Your task to perform on an android device: move an email to a new category in the gmail app Image 0: 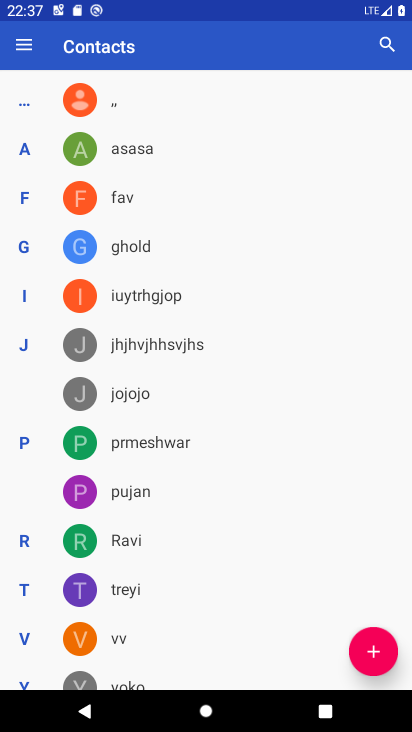
Step 0: press home button
Your task to perform on an android device: move an email to a new category in the gmail app Image 1: 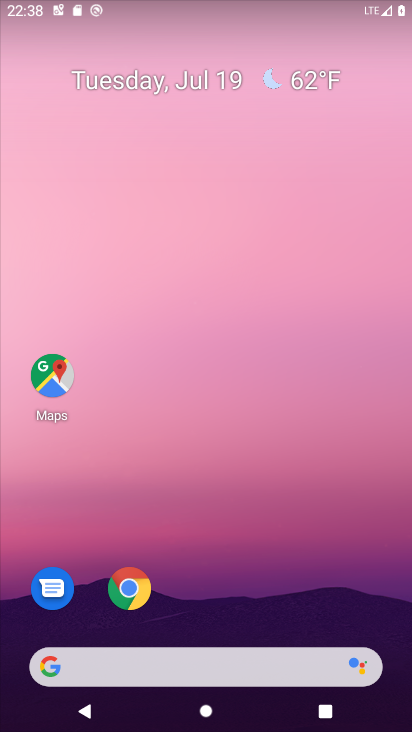
Step 1: drag from (199, 633) to (195, 318)
Your task to perform on an android device: move an email to a new category in the gmail app Image 2: 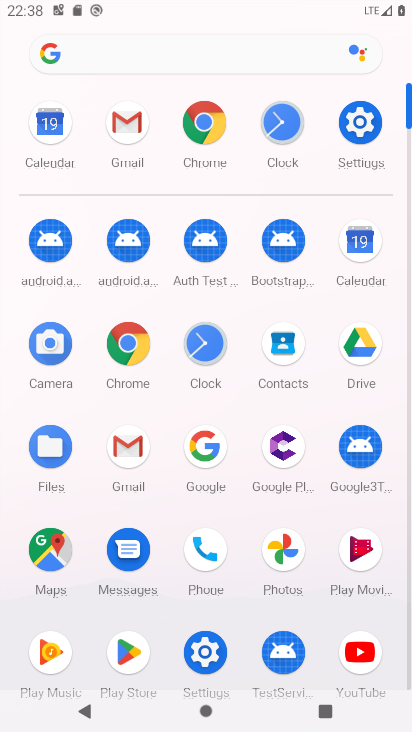
Step 2: click (132, 438)
Your task to perform on an android device: move an email to a new category in the gmail app Image 3: 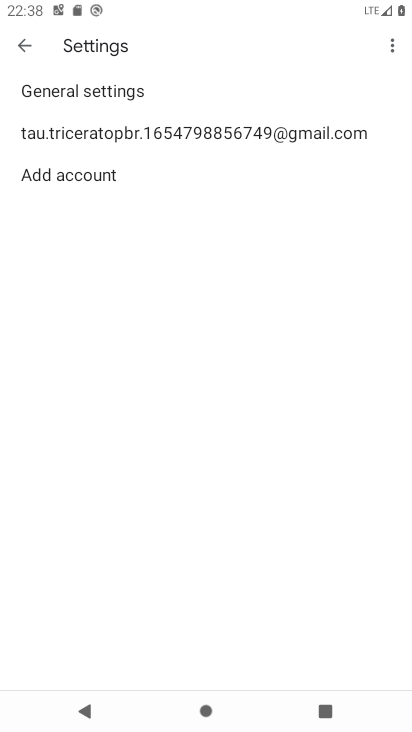
Step 3: click (23, 45)
Your task to perform on an android device: move an email to a new category in the gmail app Image 4: 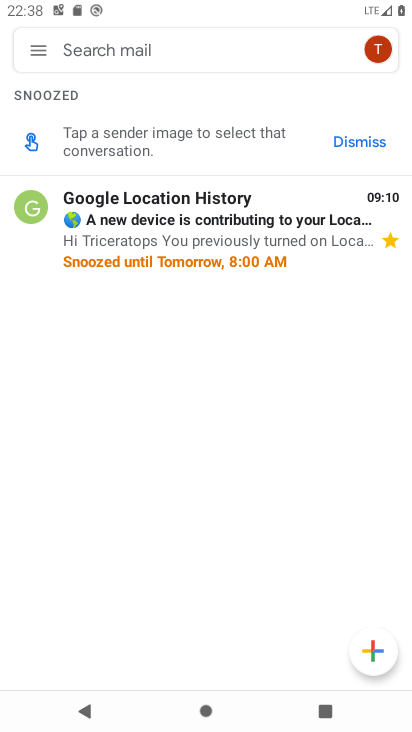
Step 4: click (231, 208)
Your task to perform on an android device: move an email to a new category in the gmail app Image 5: 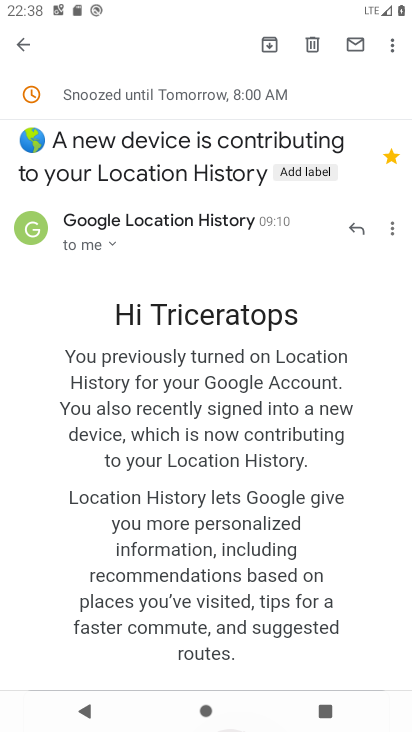
Step 5: click (396, 50)
Your task to perform on an android device: move an email to a new category in the gmail app Image 6: 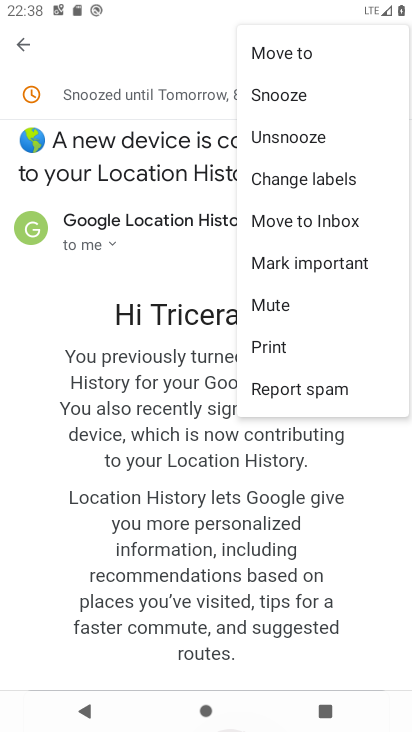
Step 6: click (353, 45)
Your task to perform on an android device: move an email to a new category in the gmail app Image 7: 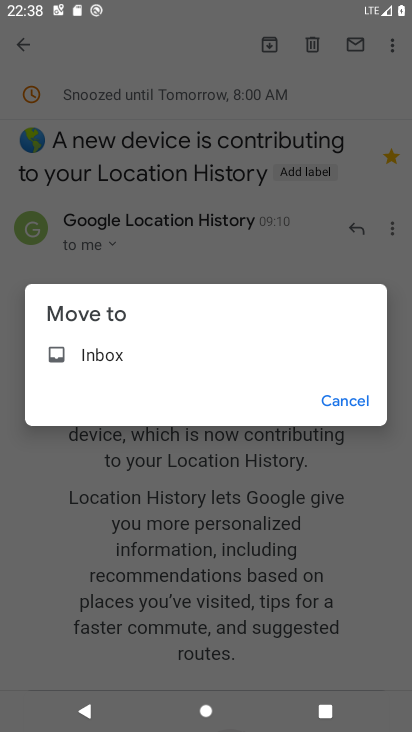
Step 7: click (92, 358)
Your task to perform on an android device: move an email to a new category in the gmail app Image 8: 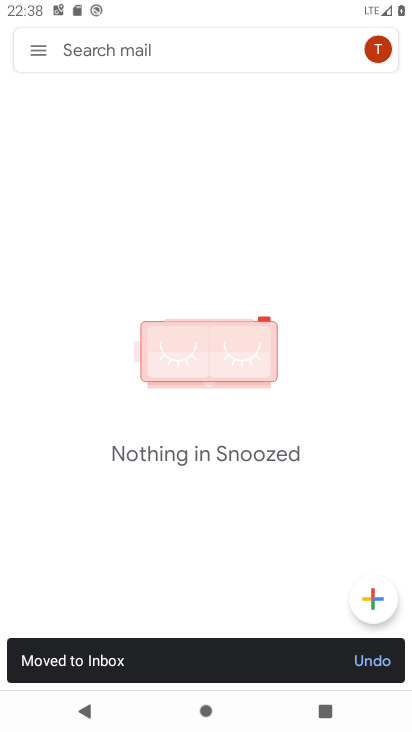
Step 8: task complete